Your task to perform on an android device: What's the news in China? Image 0: 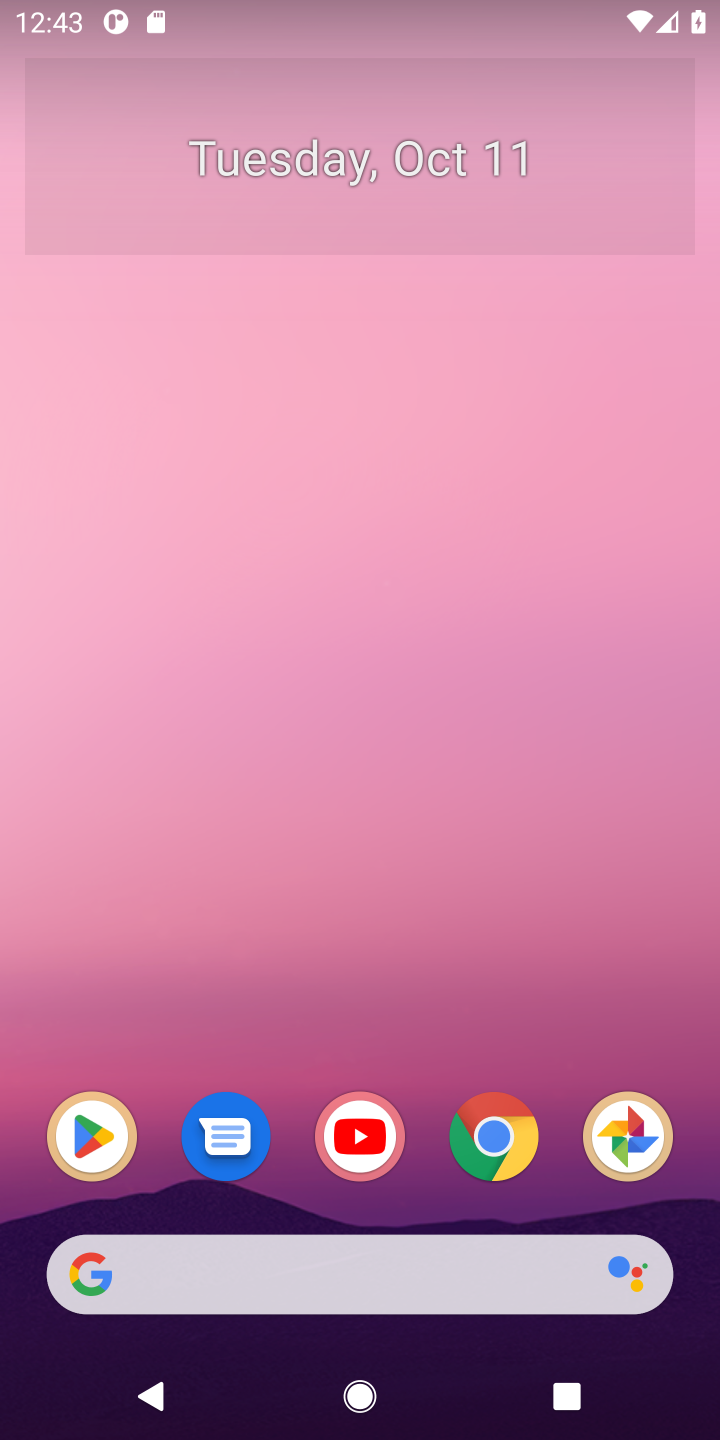
Step 0: press home button
Your task to perform on an android device: What's the news in China? Image 1: 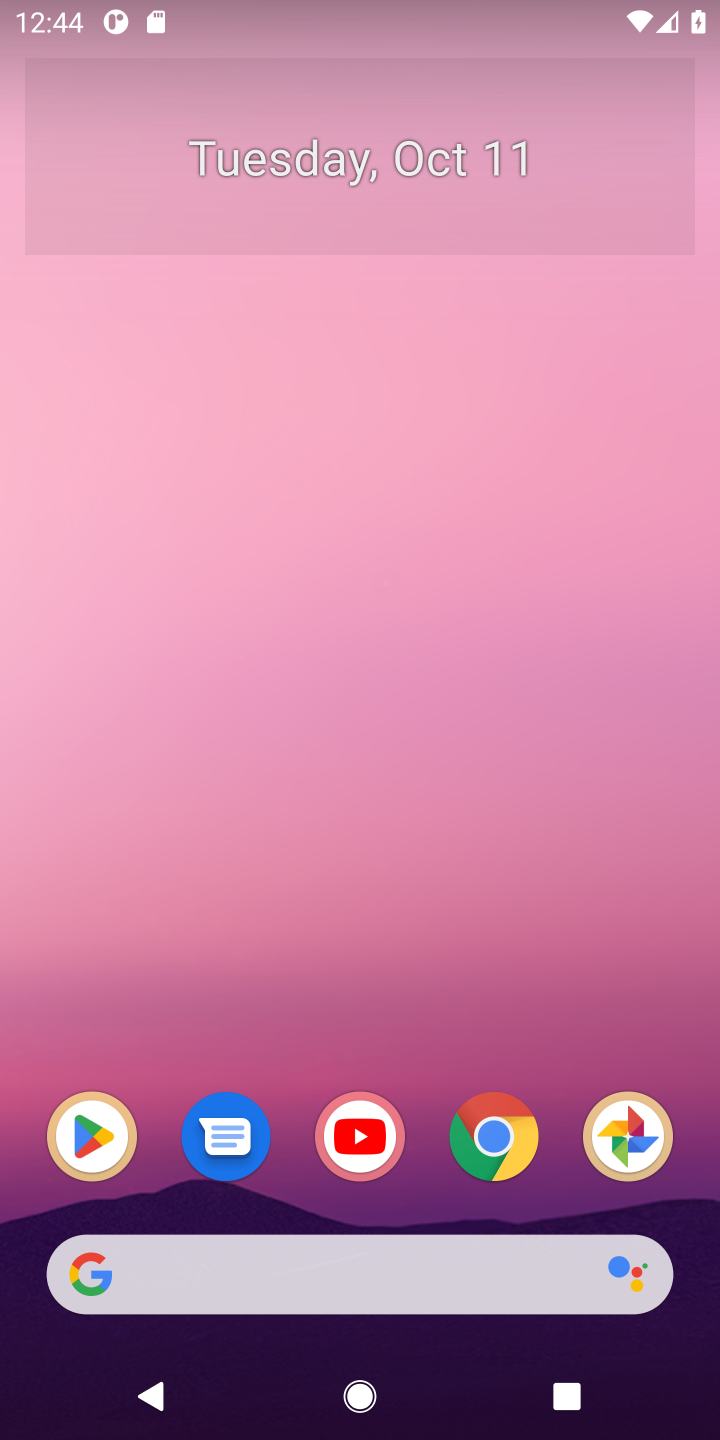
Step 1: click (407, 1278)
Your task to perform on an android device: What's the news in China? Image 2: 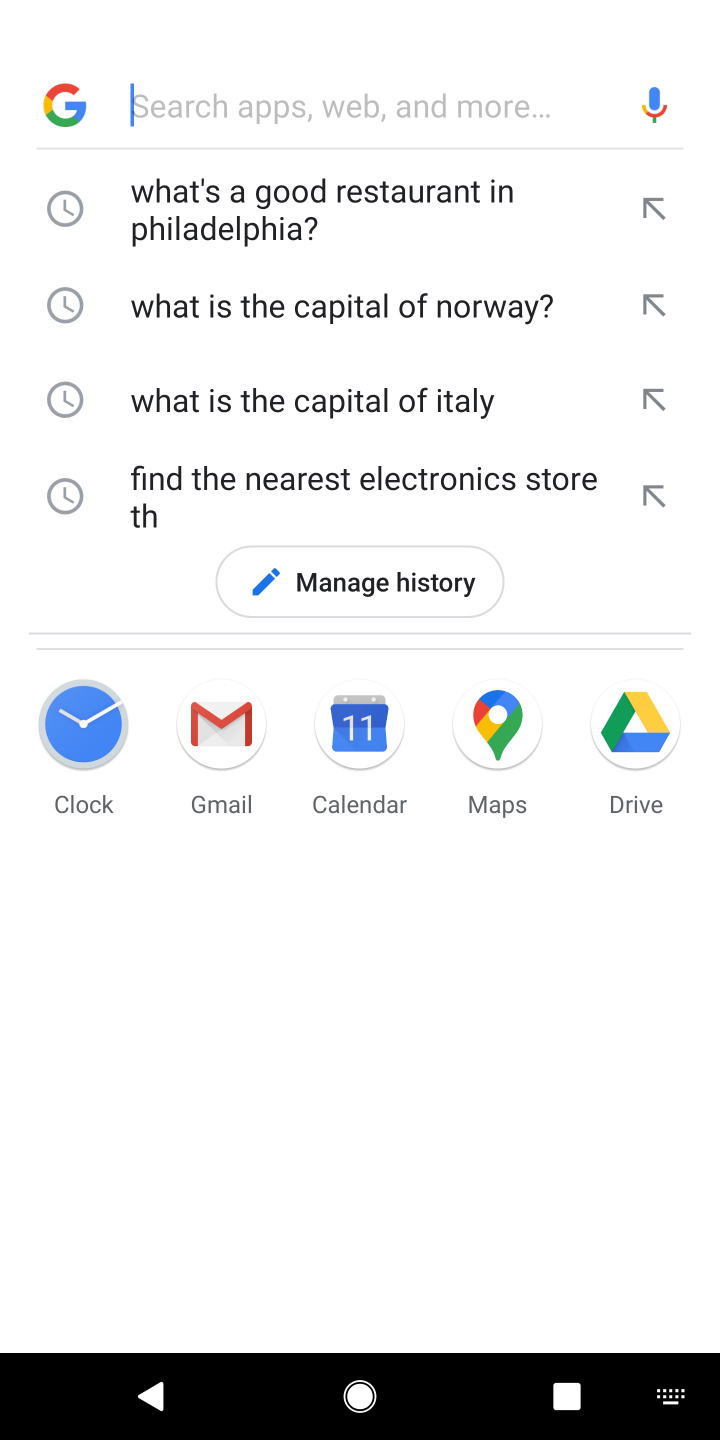
Step 2: type "What's the news in China"
Your task to perform on an android device: What's the news in China? Image 3: 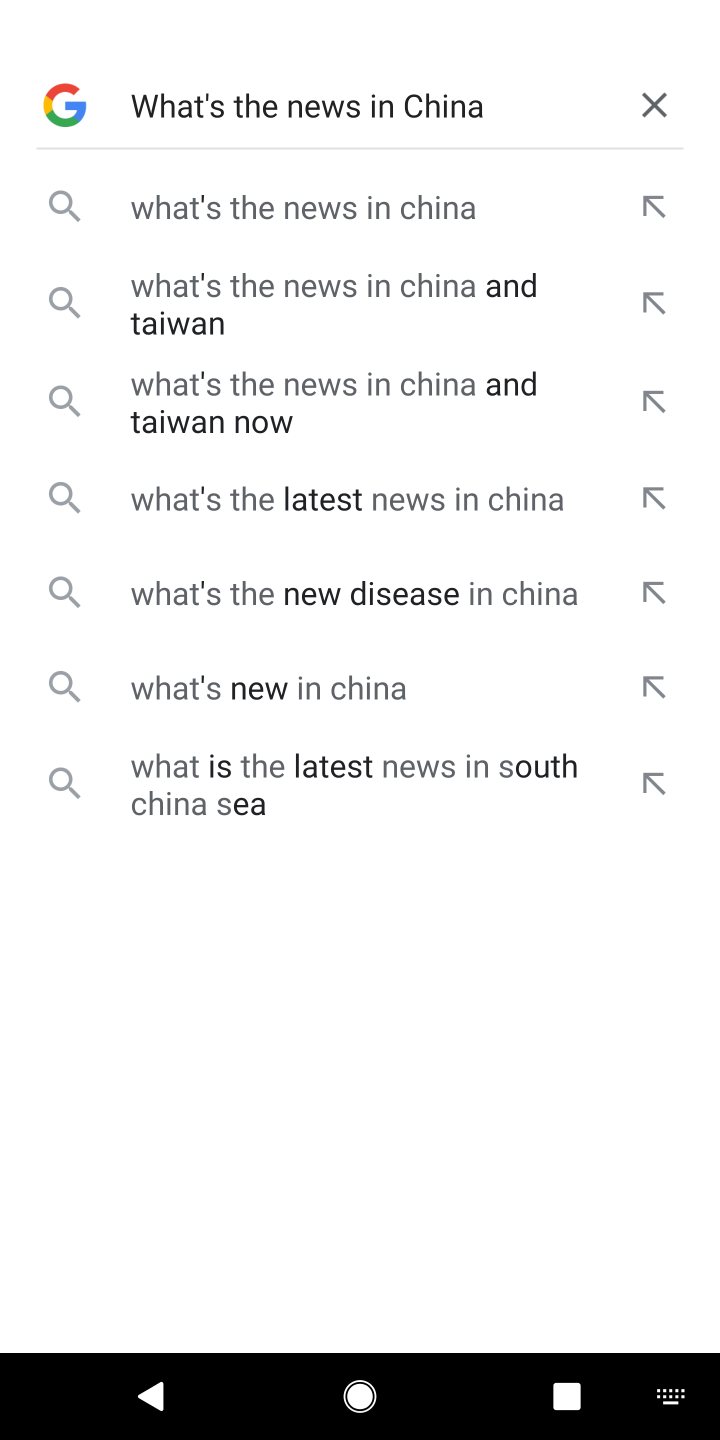
Step 3: press enter
Your task to perform on an android device: What's the news in China? Image 4: 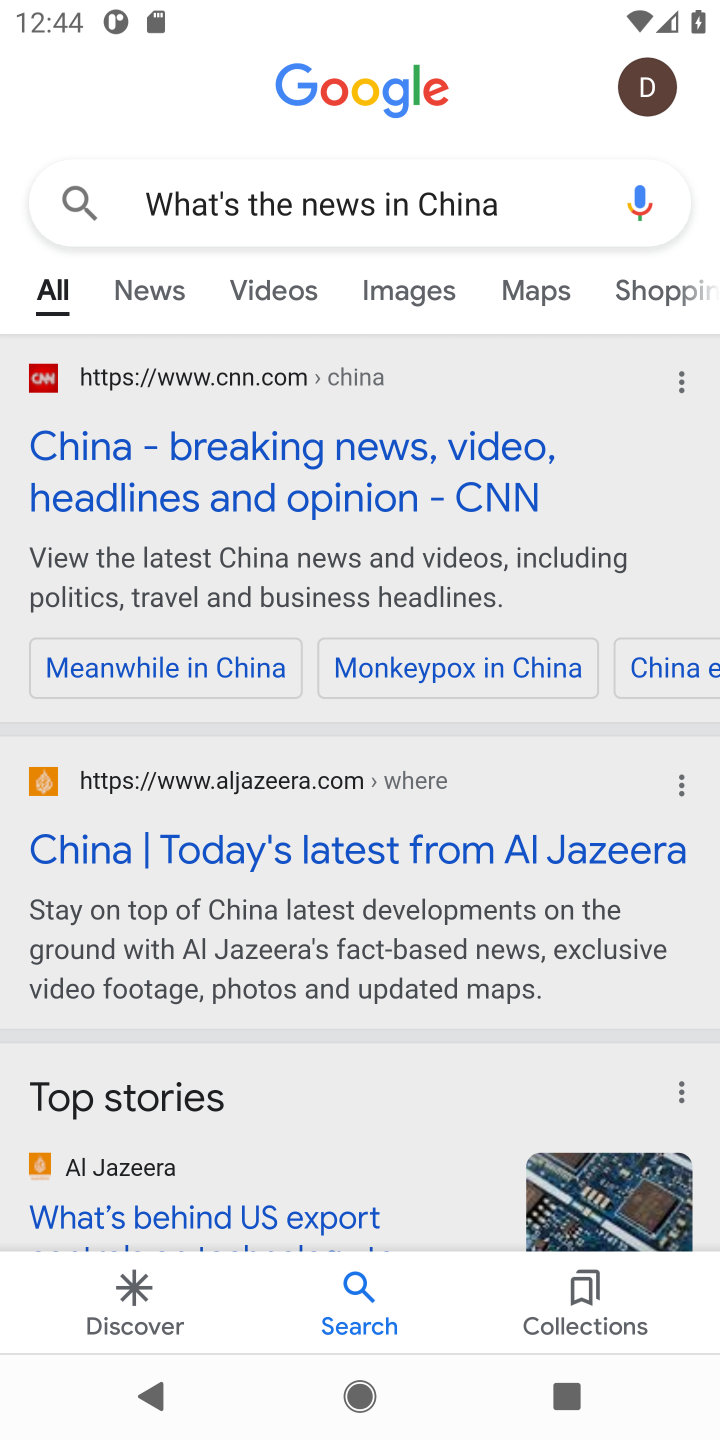
Step 4: click (357, 493)
Your task to perform on an android device: What's the news in China? Image 5: 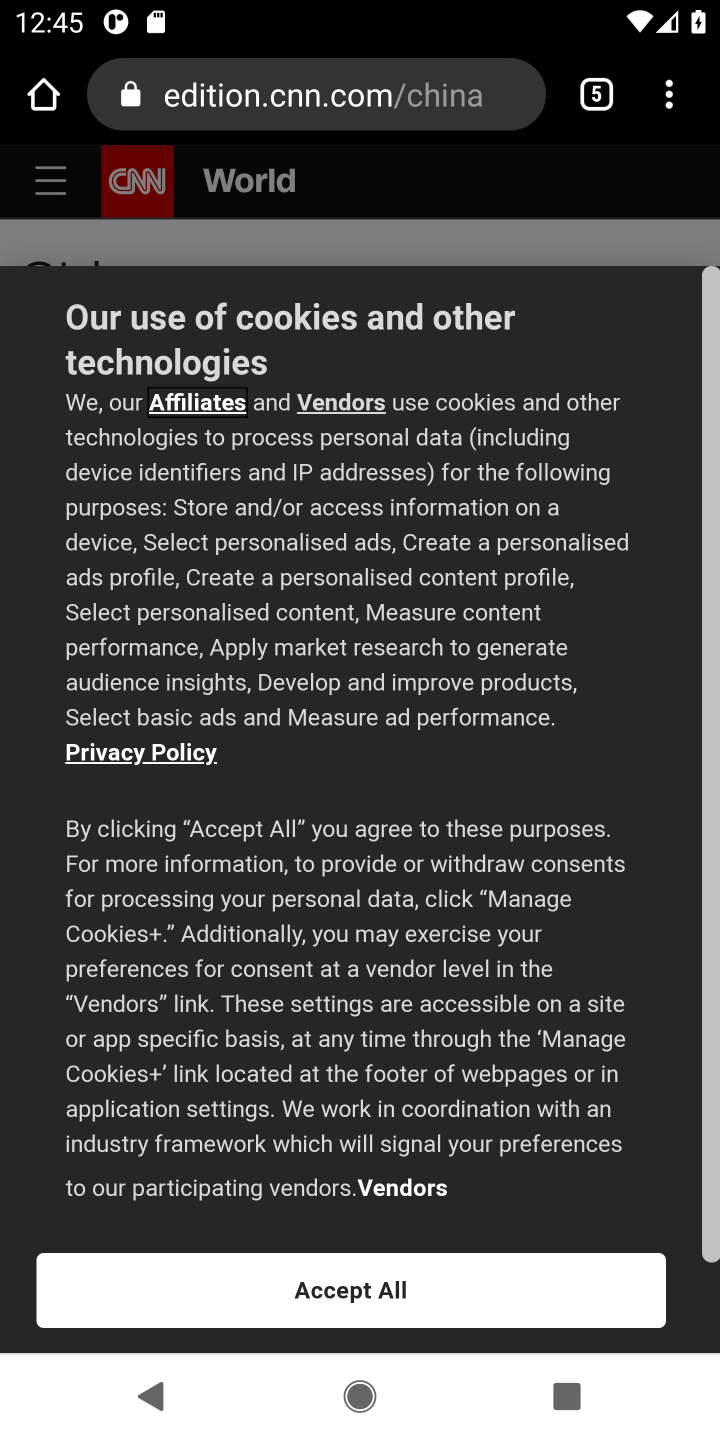
Step 5: click (394, 1295)
Your task to perform on an android device: What's the news in China? Image 6: 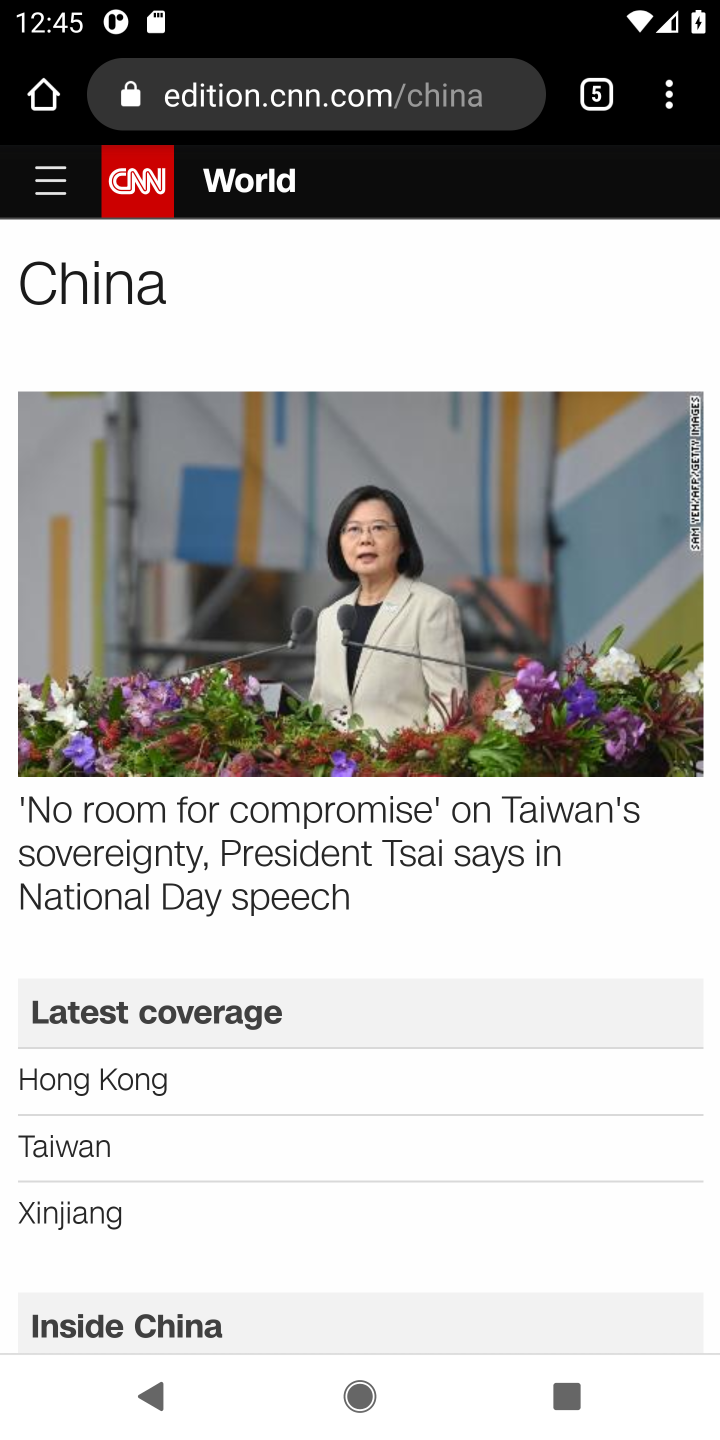
Step 6: task complete